Your task to perform on an android device: turn off translation in the chrome app Image 0: 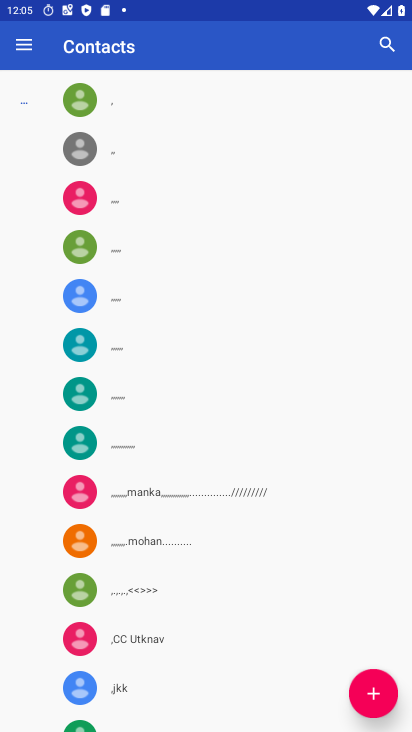
Step 0: drag from (264, 639) to (273, 195)
Your task to perform on an android device: turn off translation in the chrome app Image 1: 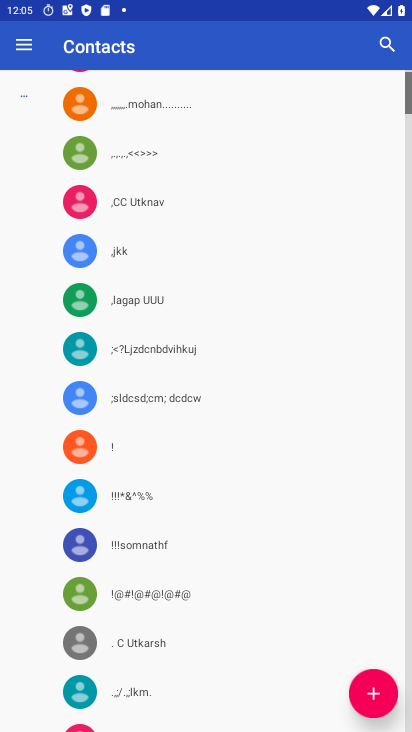
Step 1: press home button
Your task to perform on an android device: turn off translation in the chrome app Image 2: 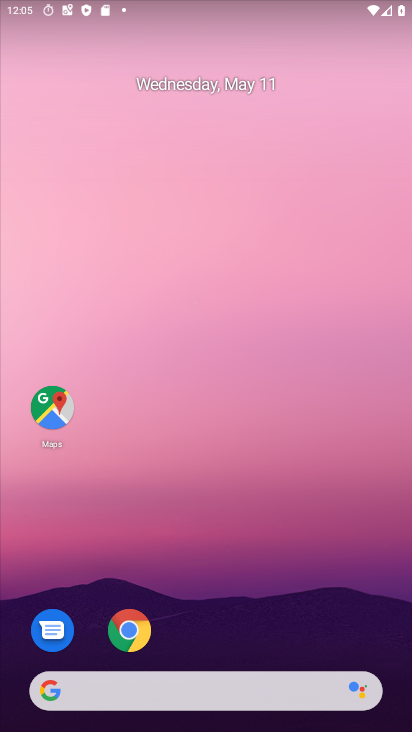
Step 2: click (141, 631)
Your task to perform on an android device: turn off translation in the chrome app Image 3: 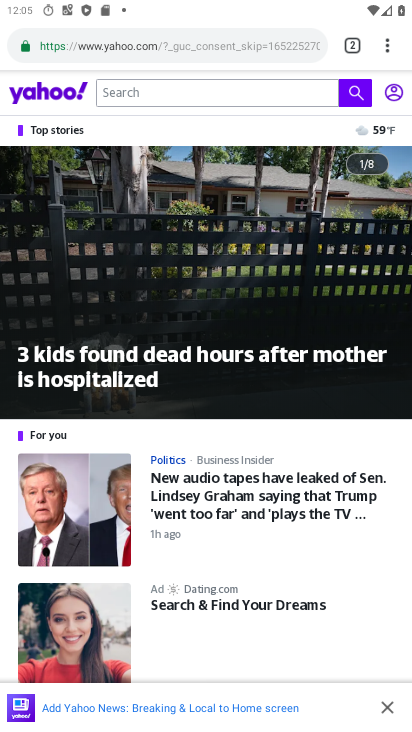
Step 3: click (387, 38)
Your task to perform on an android device: turn off translation in the chrome app Image 4: 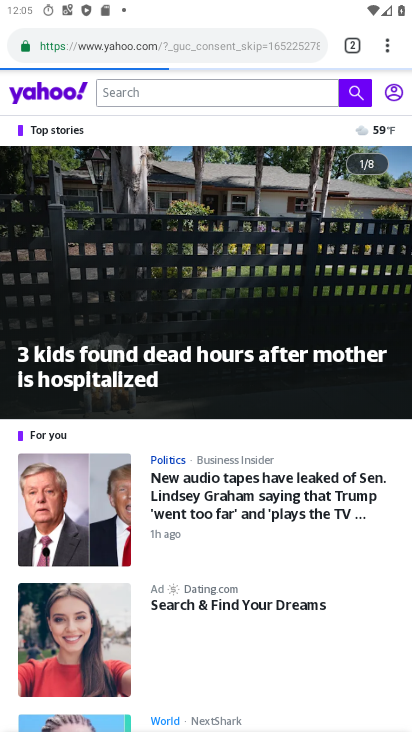
Step 4: drag from (390, 37) to (239, 551)
Your task to perform on an android device: turn off translation in the chrome app Image 5: 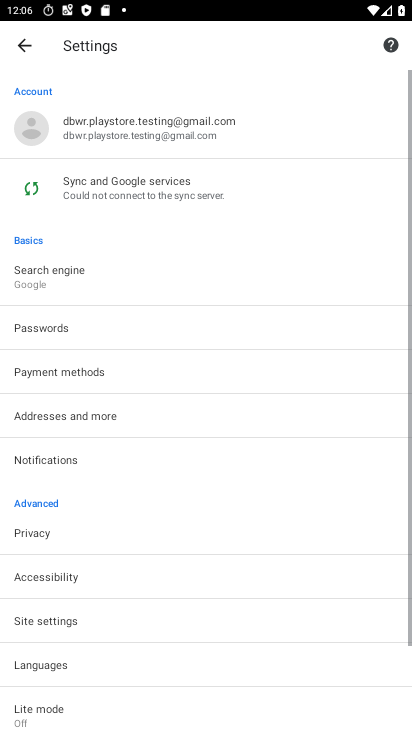
Step 5: drag from (240, 528) to (325, 41)
Your task to perform on an android device: turn off translation in the chrome app Image 6: 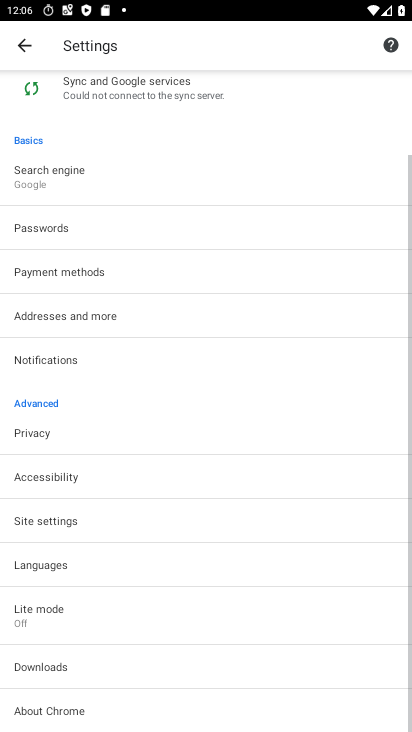
Step 6: click (65, 565)
Your task to perform on an android device: turn off translation in the chrome app Image 7: 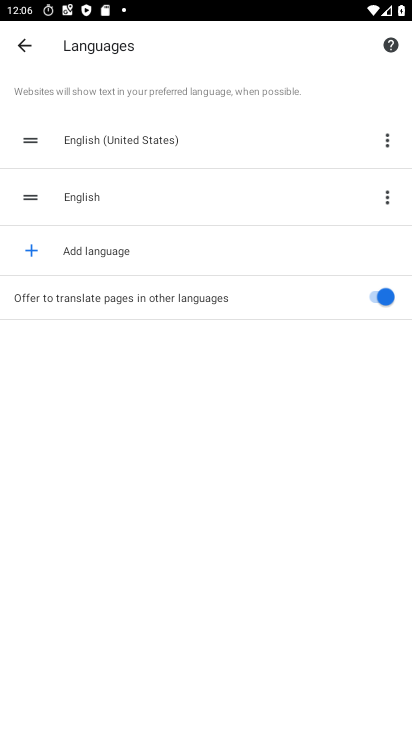
Step 7: click (373, 291)
Your task to perform on an android device: turn off translation in the chrome app Image 8: 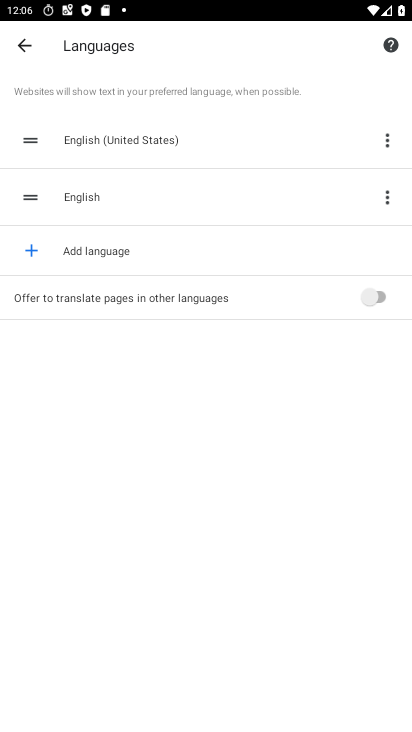
Step 8: task complete